Your task to perform on an android device: turn off translation in the chrome app Image 0: 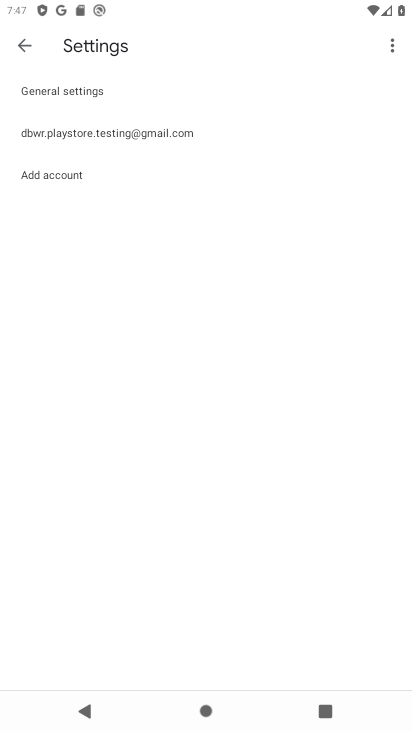
Step 0: press back button
Your task to perform on an android device: turn off translation in the chrome app Image 1: 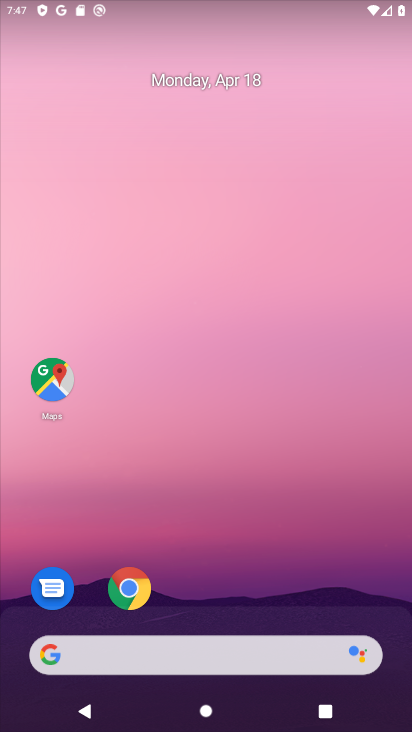
Step 1: click (127, 601)
Your task to perform on an android device: turn off translation in the chrome app Image 2: 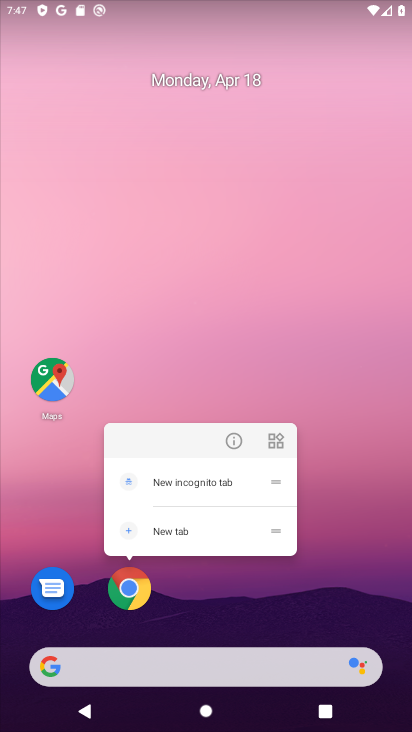
Step 2: click (132, 593)
Your task to perform on an android device: turn off translation in the chrome app Image 3: 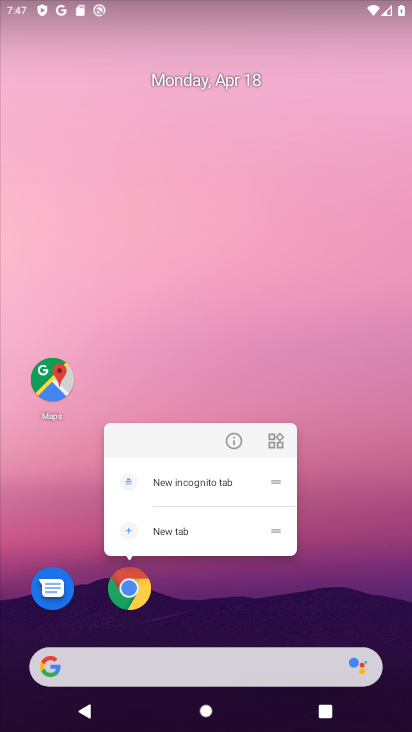
Step 3: click (127, 579)
Your task to perform on an android device: turn off translation in the chrome app Image 4: 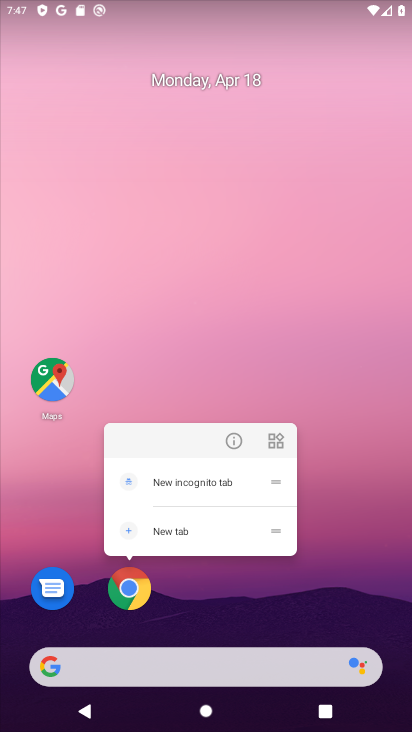
Step 4: click (123, 594)
Your task to perform on an android device: turn off translation in the chrome app Image 5: 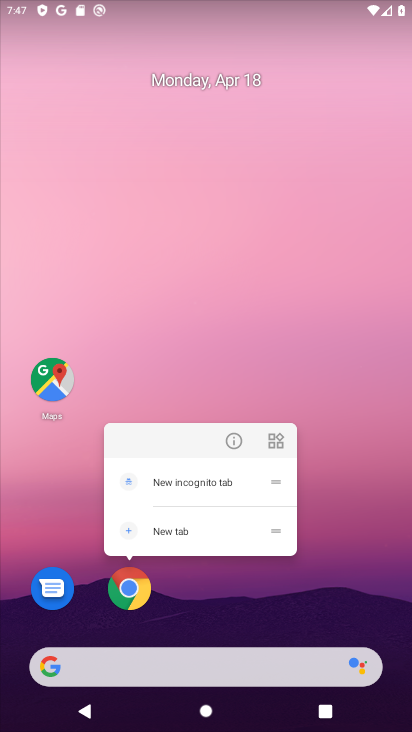
Step 5: click (133, 597)
Your task to perform on an android device: turn off translation in the chrome app Image 6: 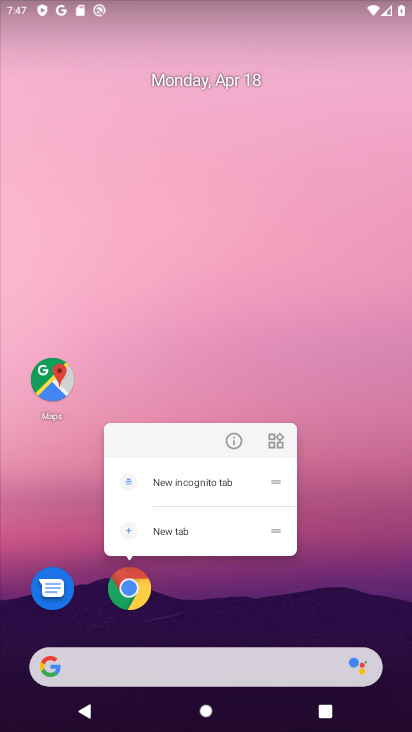
Step 6: click (135, 593)
Your task to perform on an android device: turn off translation in the chrome app Image 7: 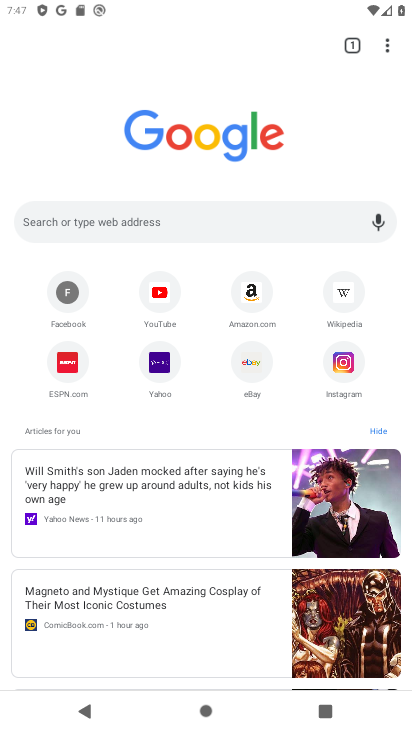
Step 7: click (390, 54)
Your task to perform on an android device: turn off translation in the chrome app Image 8: 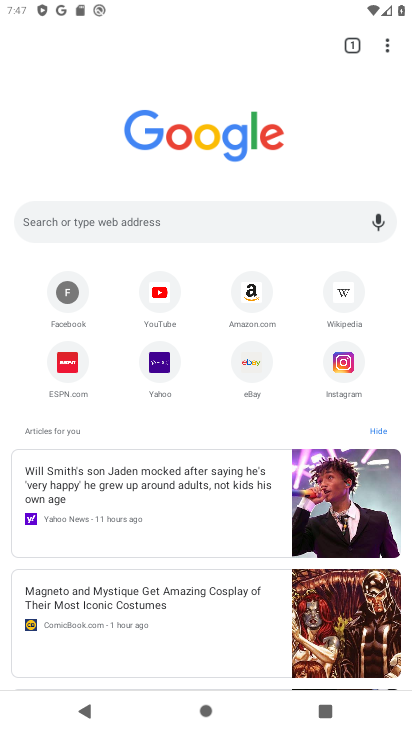
Step 8: drag from (390, 49) to (305, 437)
Your task to perform on an android device: turn off translation in the chrome app Image 9: 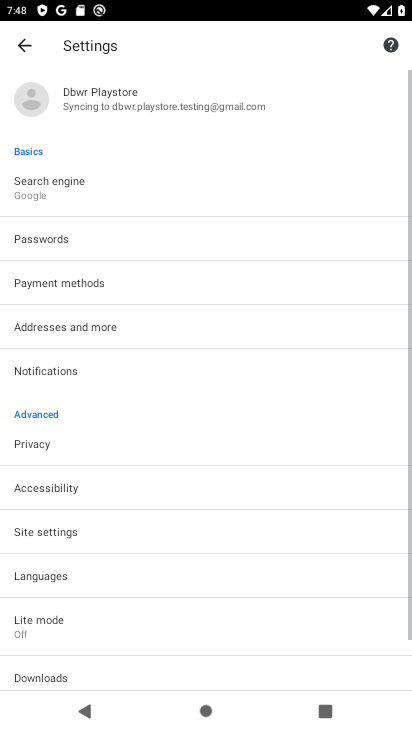
Step 9: drag from (188, 633) to (228, 470)
Your task to perform on an android device: turn off translation in the chrome app Image 10: 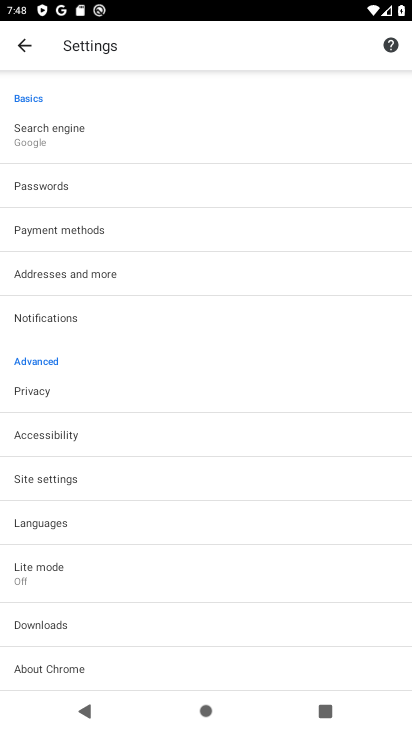
Step 10: click (110, 534)
Your task to perform on an android device: turn off translation in the chrome app Image 11: 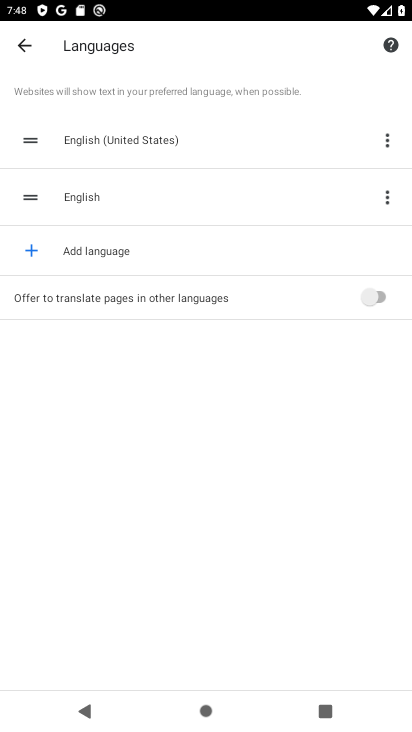
Step 11: task complete